Your task to perform on an android device: check the backup settings in the google photos Image 0: 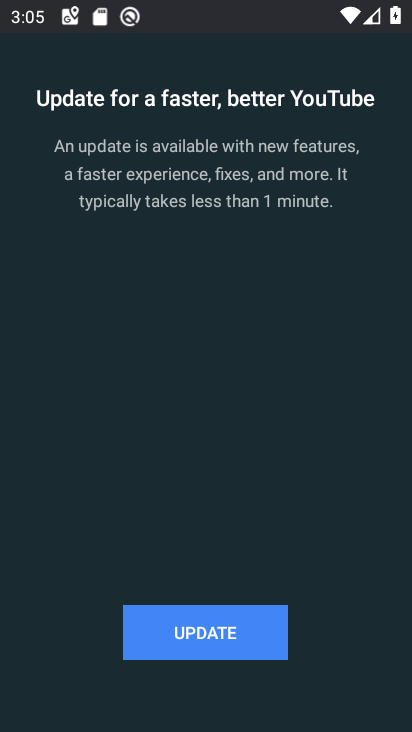
Step 0: drag from (105, 494) to (193, 340)
Your task to perform on an android device: check the backup settings in the google photos Image 1: 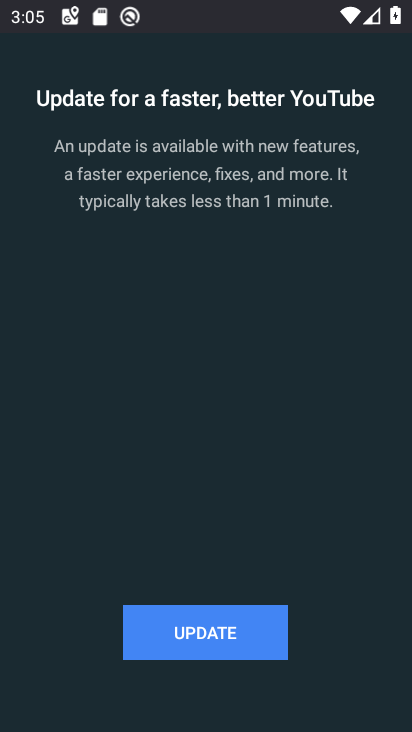
Step 1: press home button
Your task to perform on an android device: check the backup settings in the google photos Image 2: 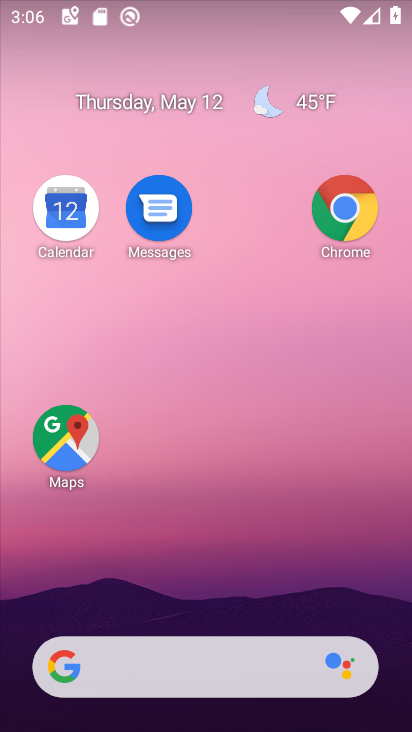
Step 2: drag from (188, 560) to (251, 366)
Your task to perform on an android device: check the backup settings in the google photos Image 3: 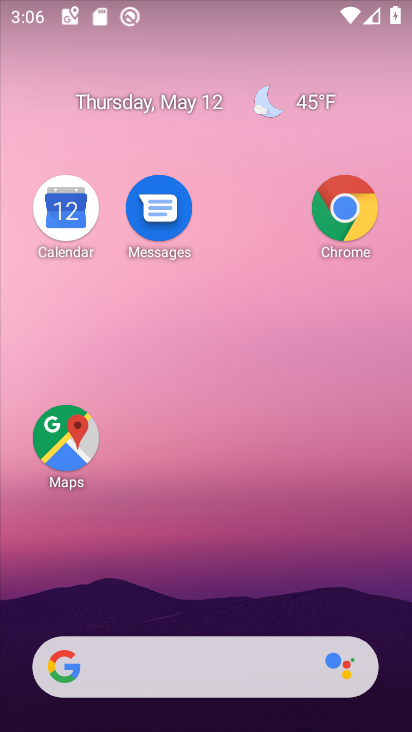
Step 3: drag from (193, 494) to (297, 214)
Your task to perform on an android device: check the backup settings in the google photos Image 4: 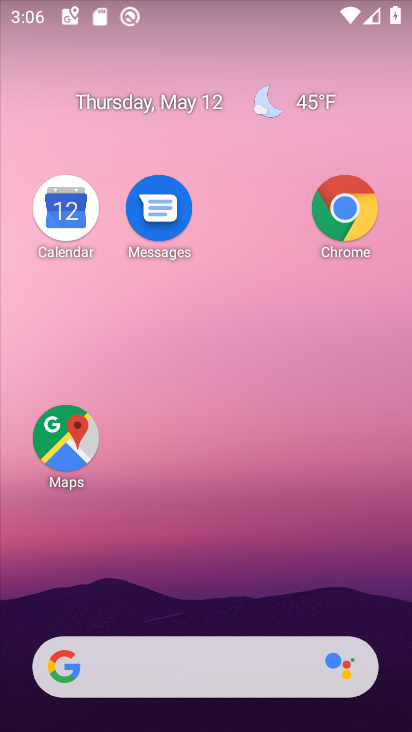
Step 4: drag from (157, 589) to (93, 667)
Your task to perform on an android device: check the backup settings in the google photos Image 5: 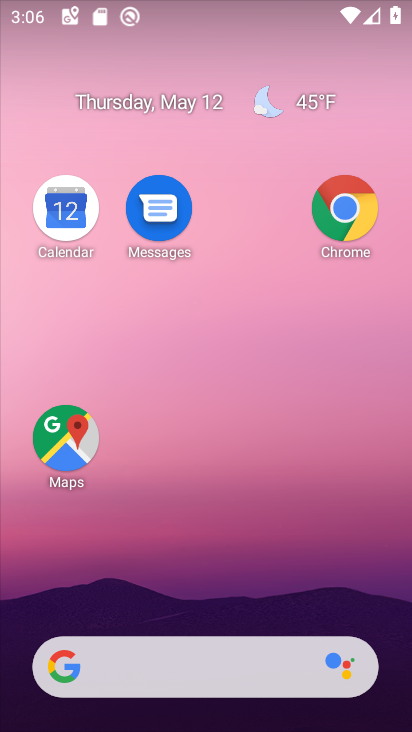
Step 5: drag from (153, 609) to (210, 158)
Your task to perform on an android device: check the backup settings in the google photos Image 6: 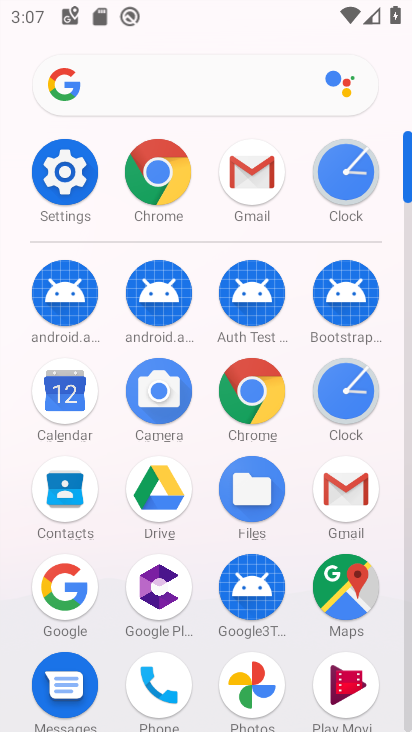
Step 6: click (256, 690)
Your task to perform on an android device: check the backup settings in the google photos Image 7: 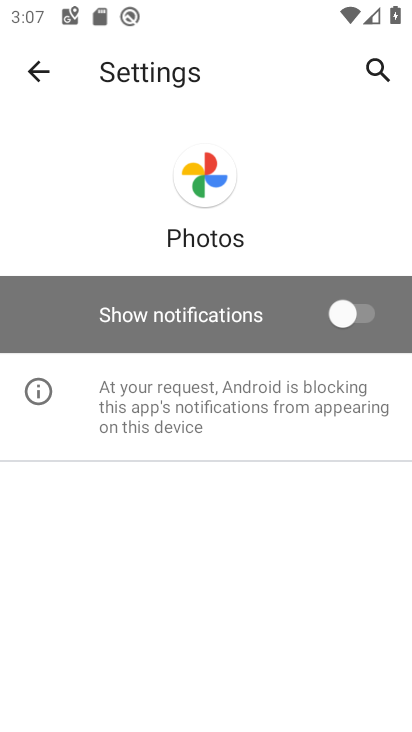
Step 7: drag from (171, 596) to (299, 243)
Your task to perform on an android device: check the backup settings in the google photos Image 8: 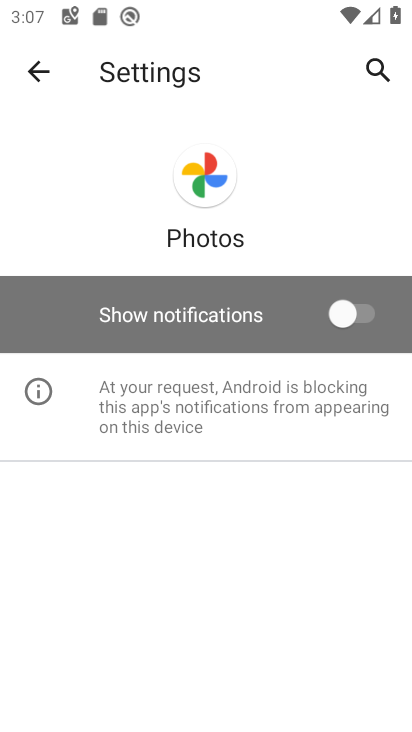
Step 8: click (50, 67)
Your task to perform on an android device: check the backup settings in the google photos Image 9: 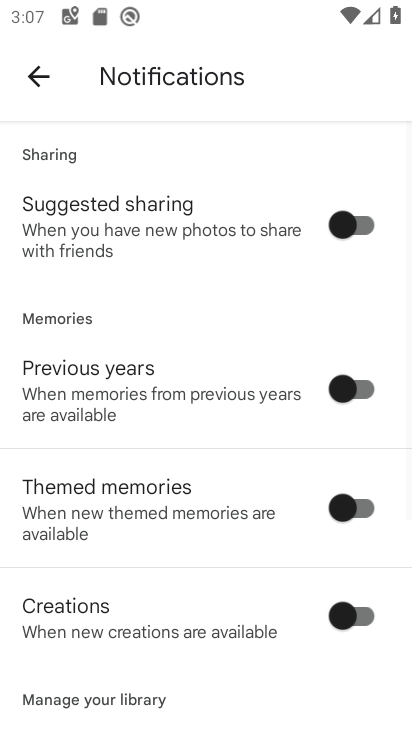
Step 9: click (30, 92)
Your task to perform on an android device: check the backup settings in the google photos Image 10: 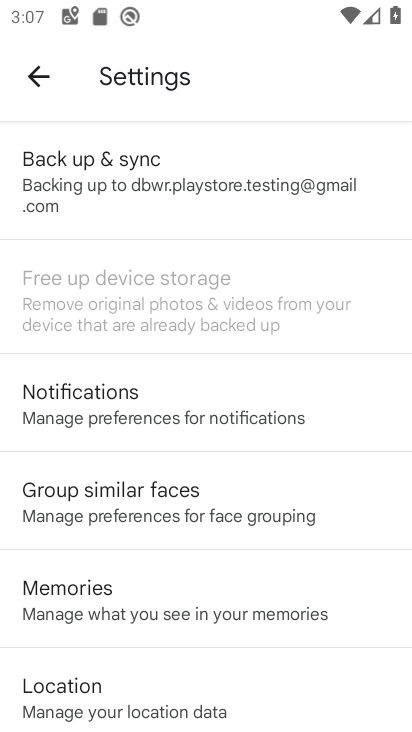
Step 10: drag from (159, 637) to (259, 77)
Your task to perform on an android device: check the backup settings in the google photos Image 11: 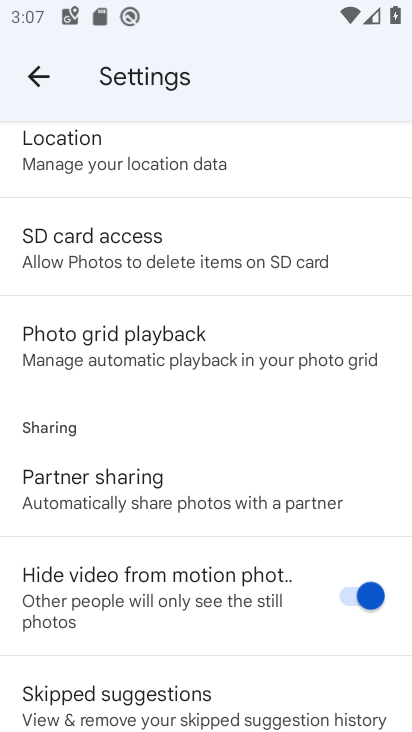
Step 11: drag from (220, 551) to (189, 129)
Your task to perform on an android device: check the backup settings in the google photos Image 12: 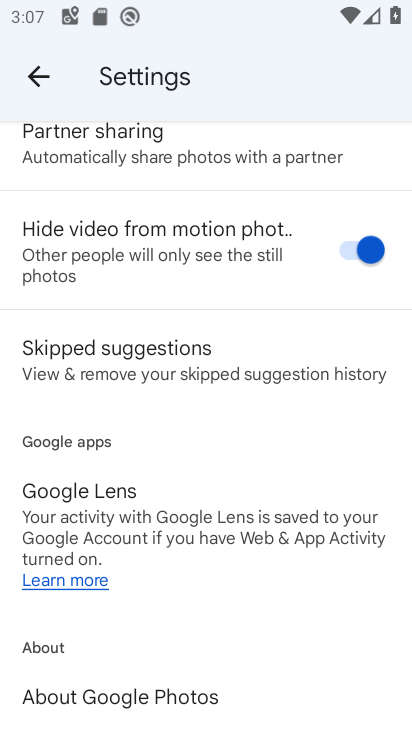
Step 12: drag from (175, 338) to (275, 723)
Your task to perform on an android device: check the backup settings in the google photos Image 13: 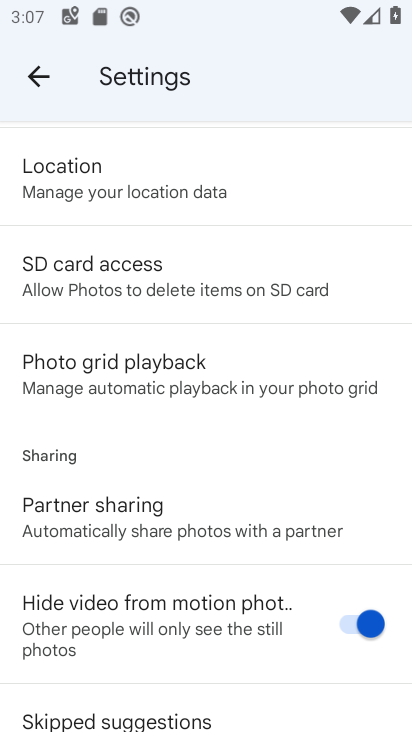
Step 13: drag from (139, 220) to (304, 709)
Your task to perform on an android device: check the backup settings in the google photos Image 14: 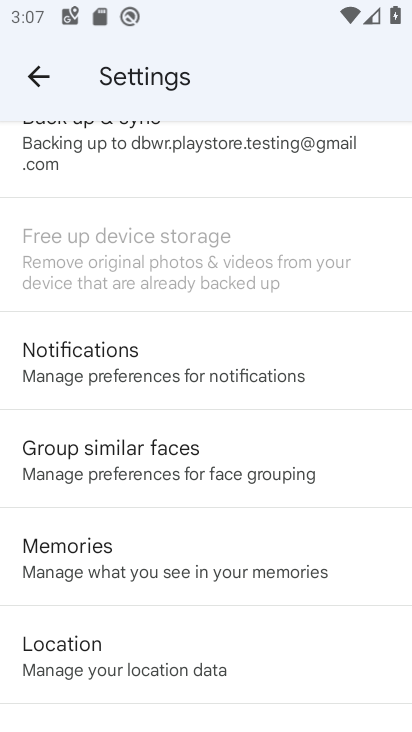
Step 14: drag from (163, 199) to (290, 581)
Your task to perform on an android device: check the backup settings in the google photos Image 15: 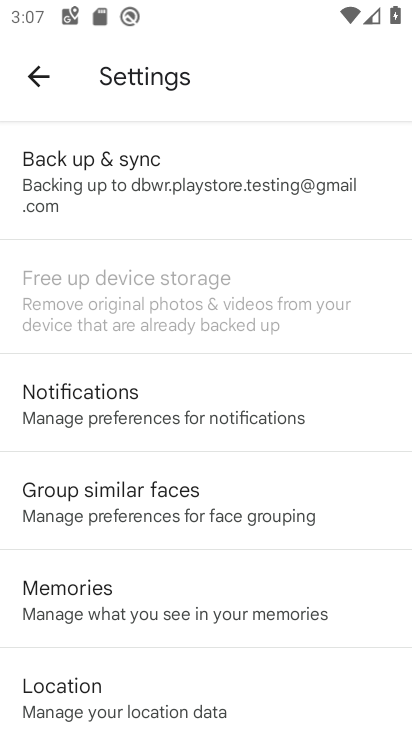
Step 15: click (133, 197)
Your task to perform on an android device: check the backup settings in the google photos Image 16: 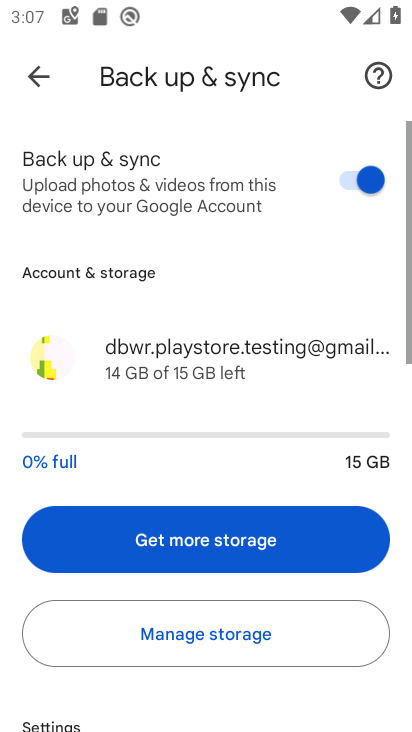
Step 16: task complete